Your task to perform on an android device: Open notification settings Image 0: 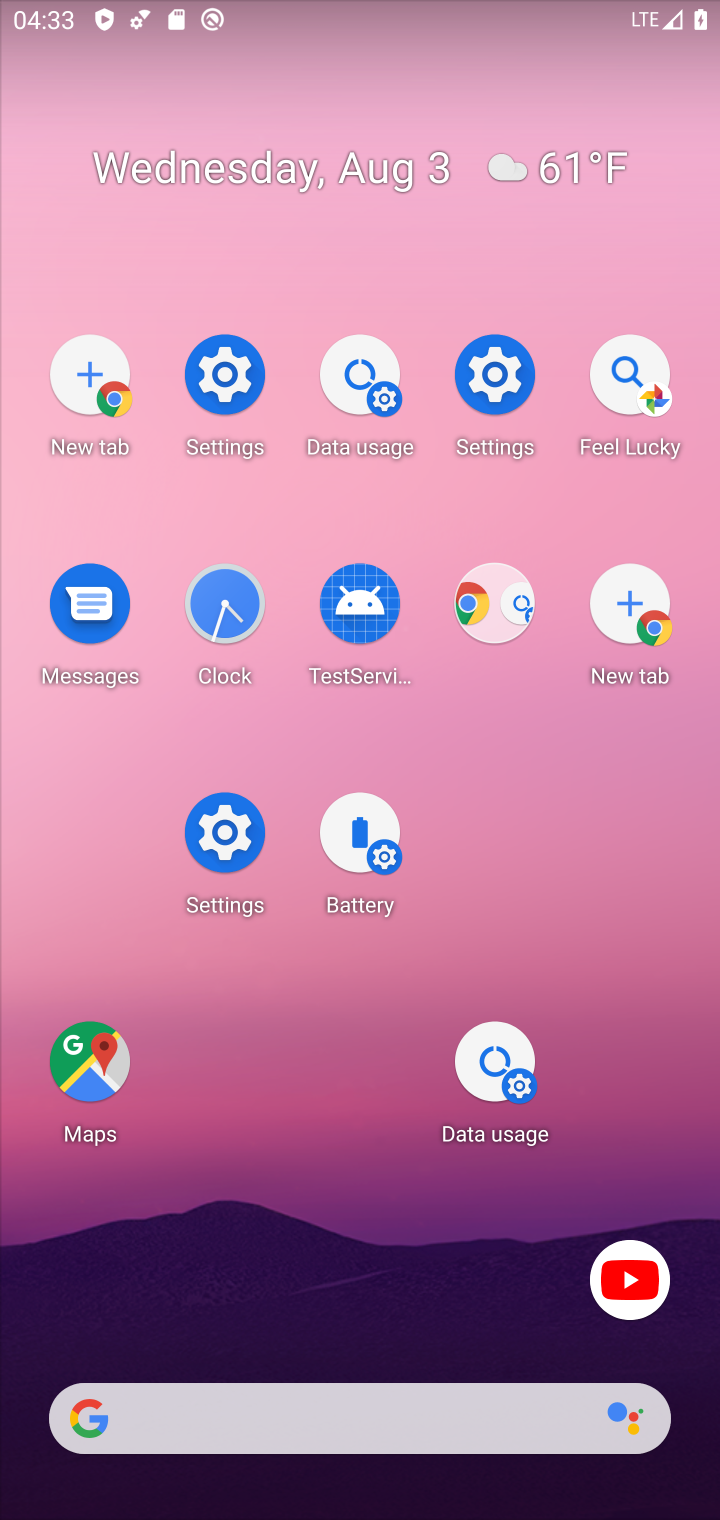
Step 0: drag from (301, 136) to (432, 665)
Your task to perform on an android device: Open notification settings Image 1: 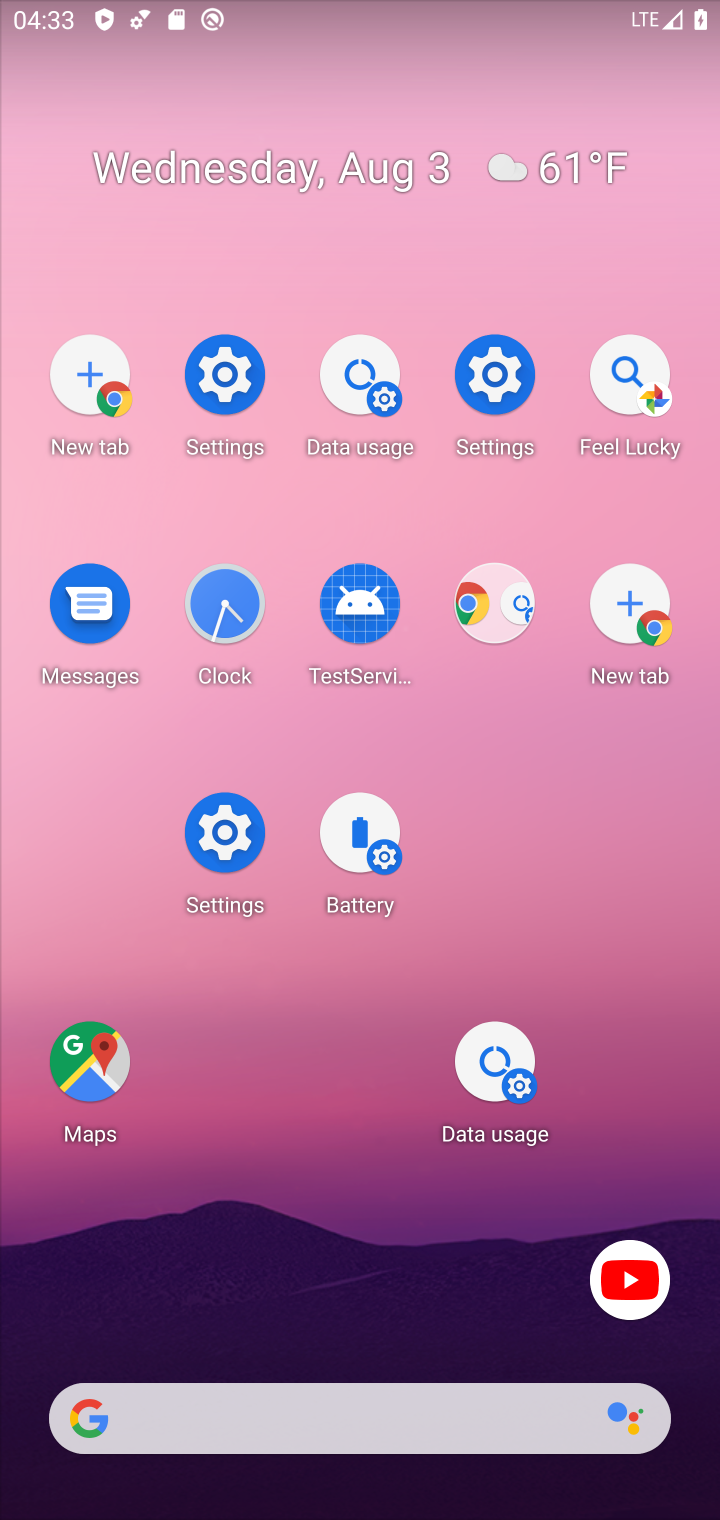
Step 1: drag from (420, 1185) to (363, 76)
Your task to perform on an android device: Open notification settings Image 2: 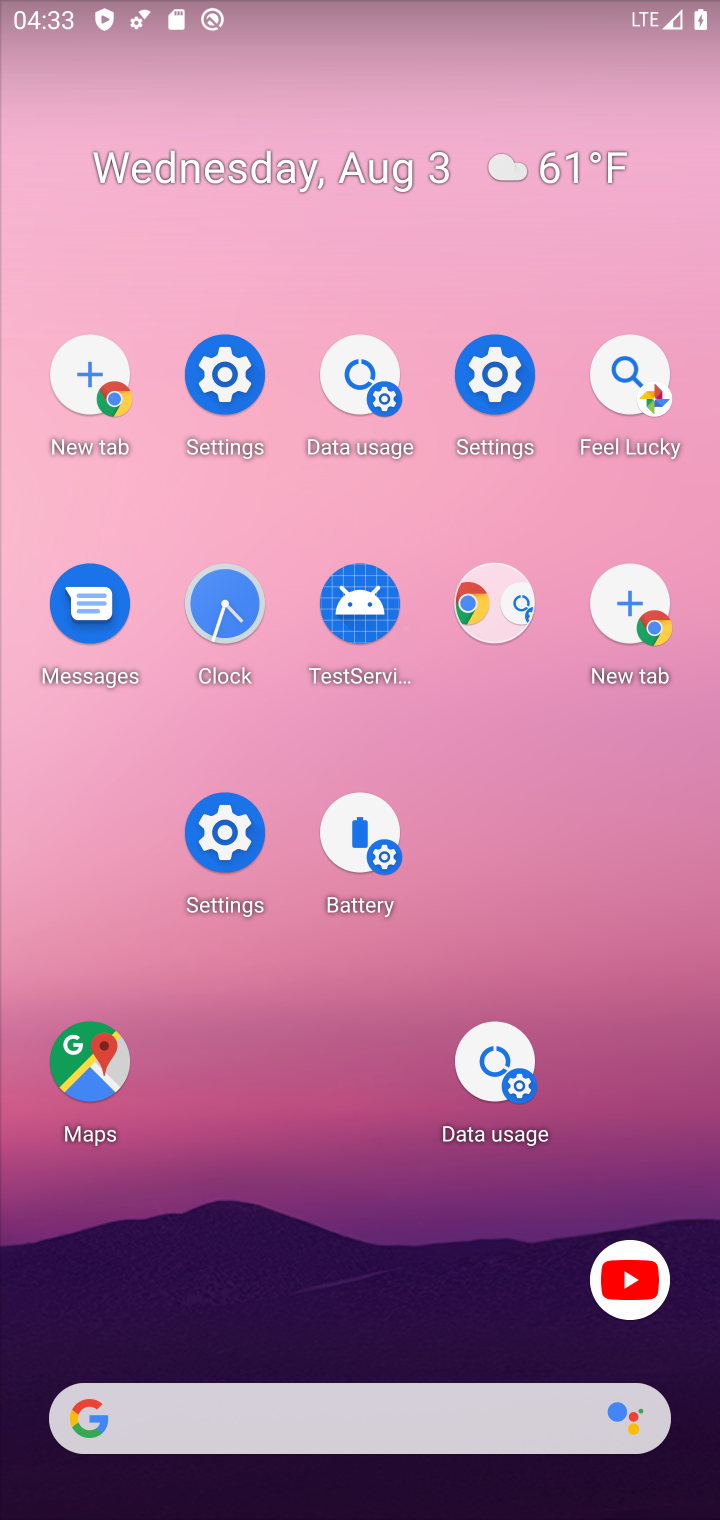
Step 2: drag from (405, 591) to (482, 192)
Your task to perform on an android device: Open notification settings Image 3: 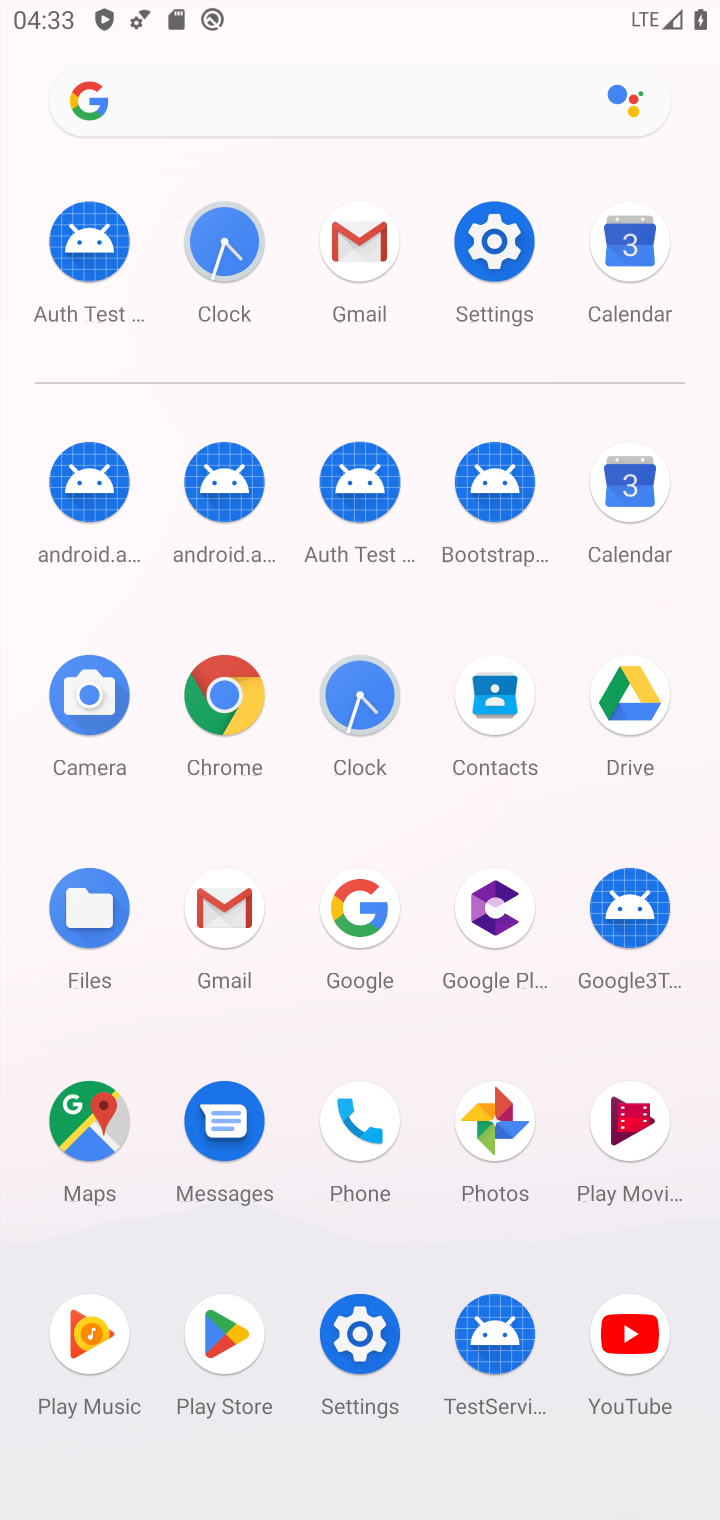
Step 3: drag from (330, 461) to (330, 317)
Your task to perform on an android device: Open notification settings Image 4: 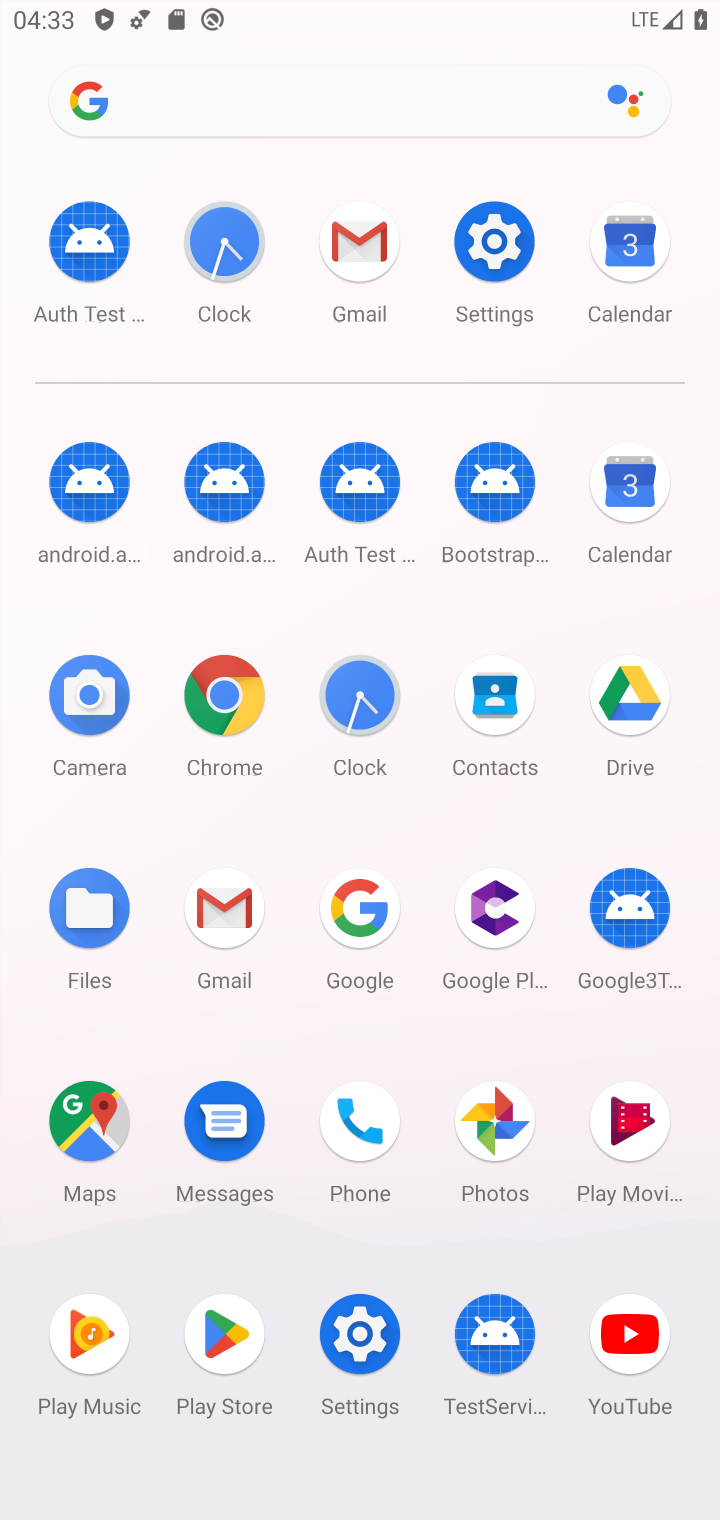
Step 4: click (491, 256)
Your task to perform on an android device: Open notification settings Image 5: 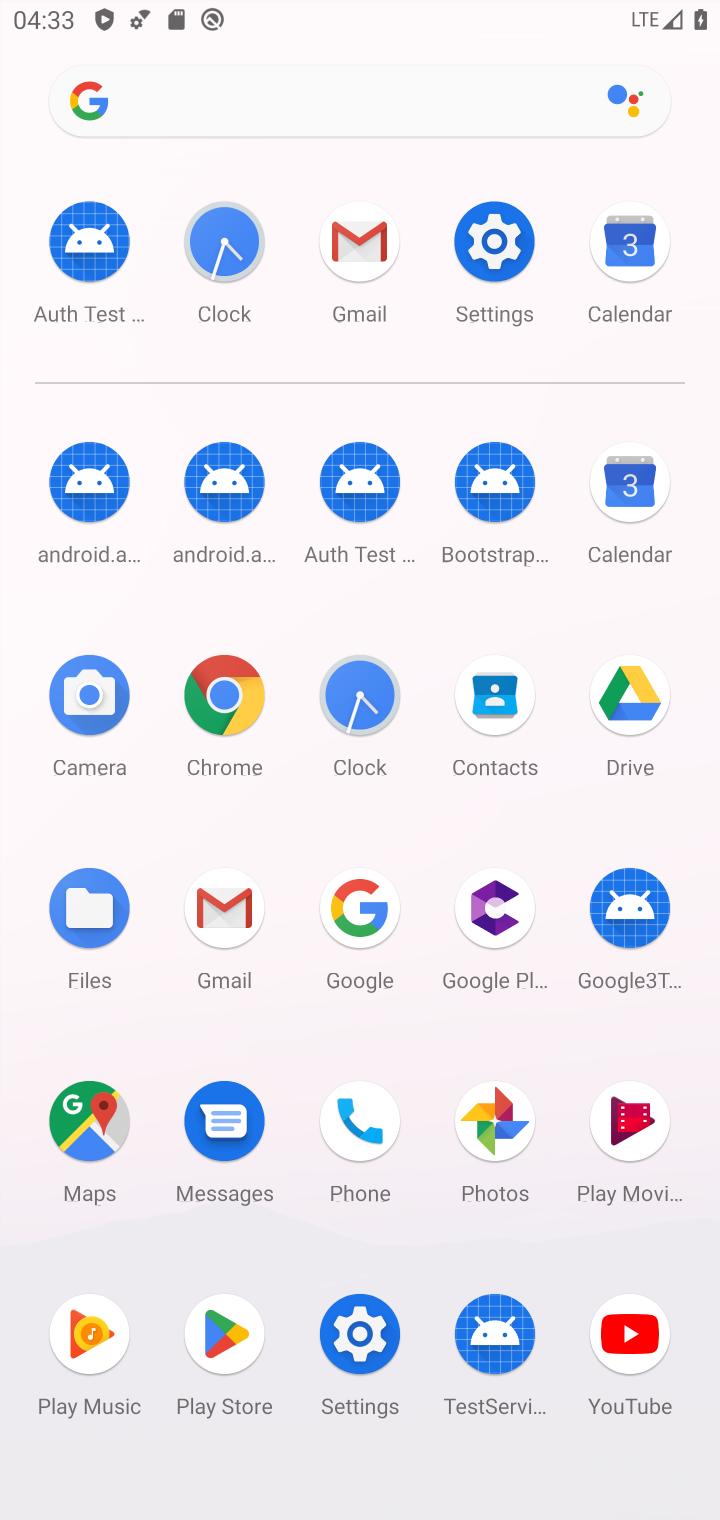
Step 5: click (491, 258)
Your task to perform on an android device: Open notification settings Image 6: 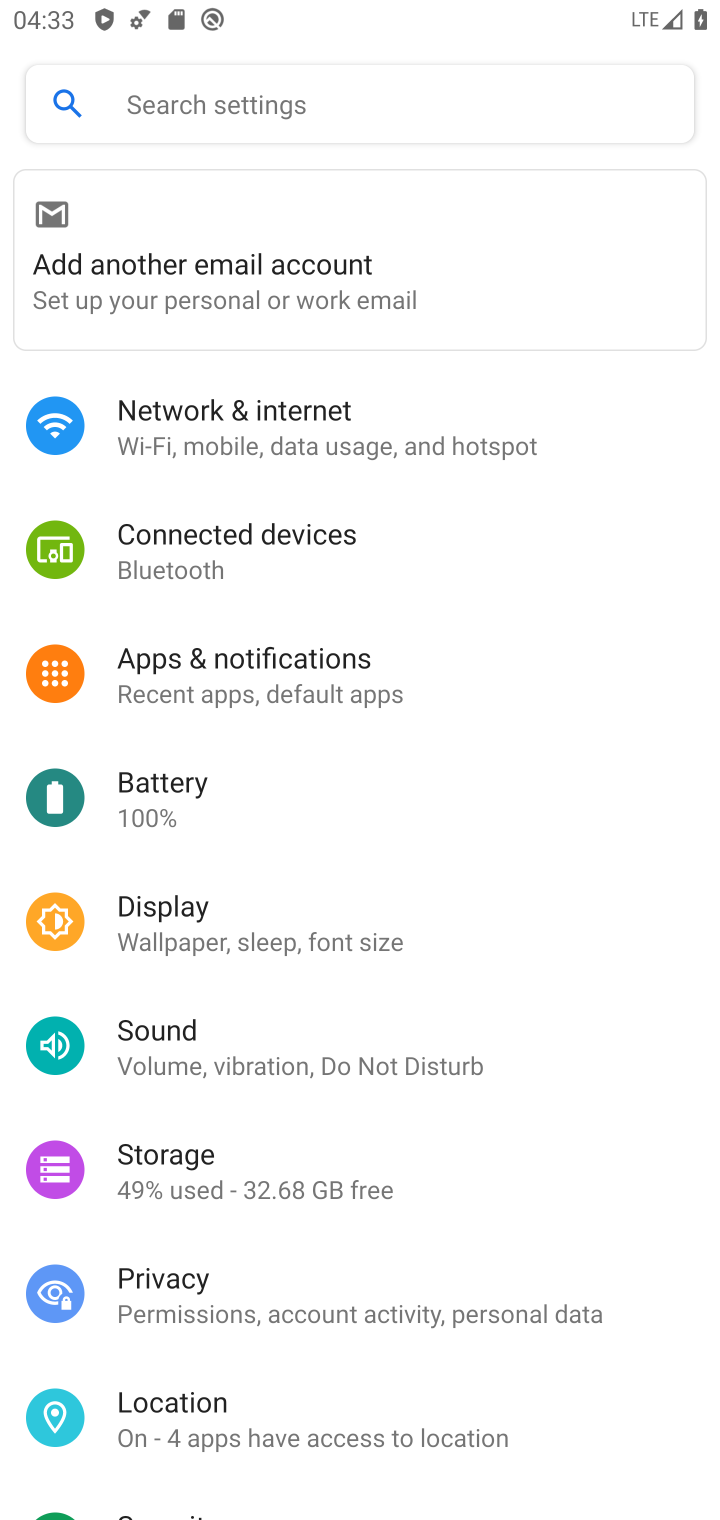
Step 6: click (501, 243)
Your task to perform on an android device: Open notification settings Image 7: 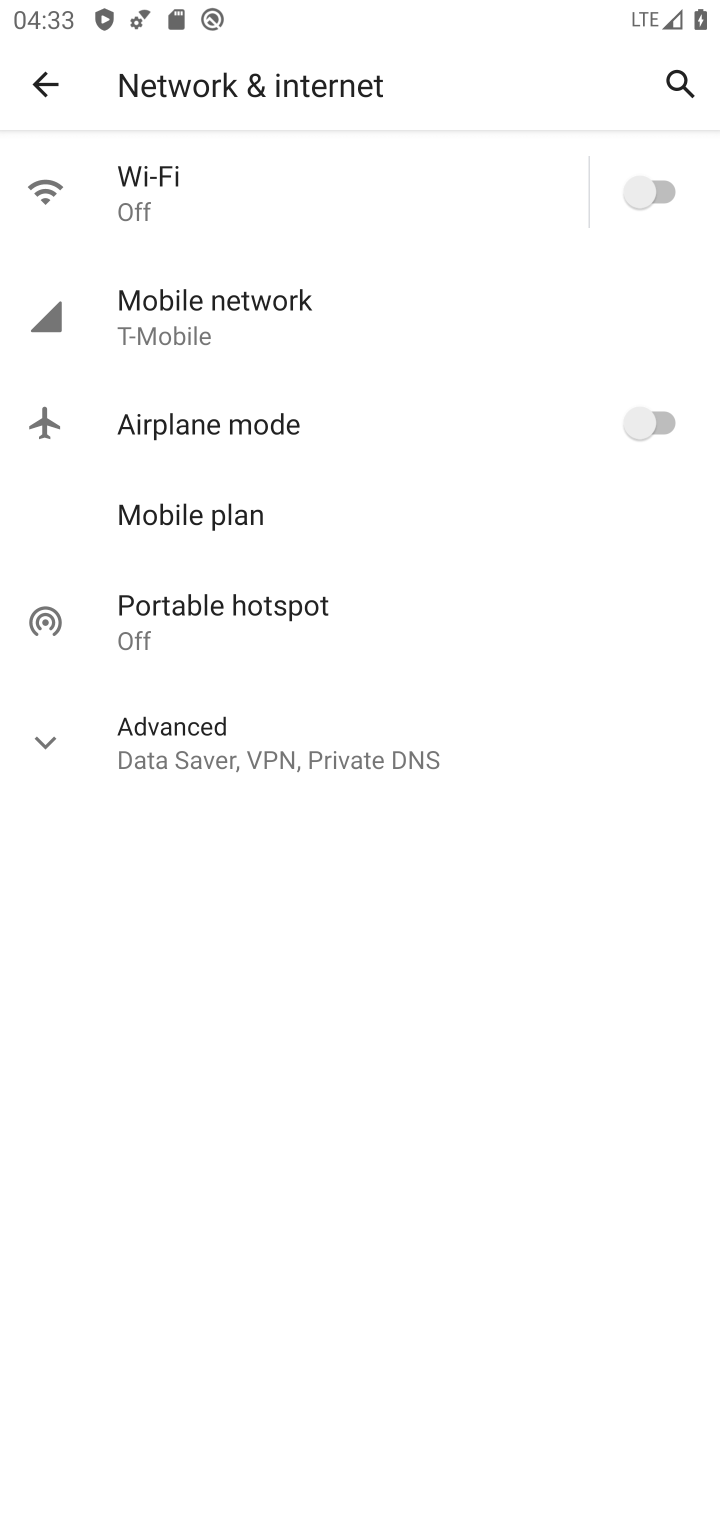
Step 7: click (246, 682)
Your task to perform on an android device: Open notification settings Image 8: 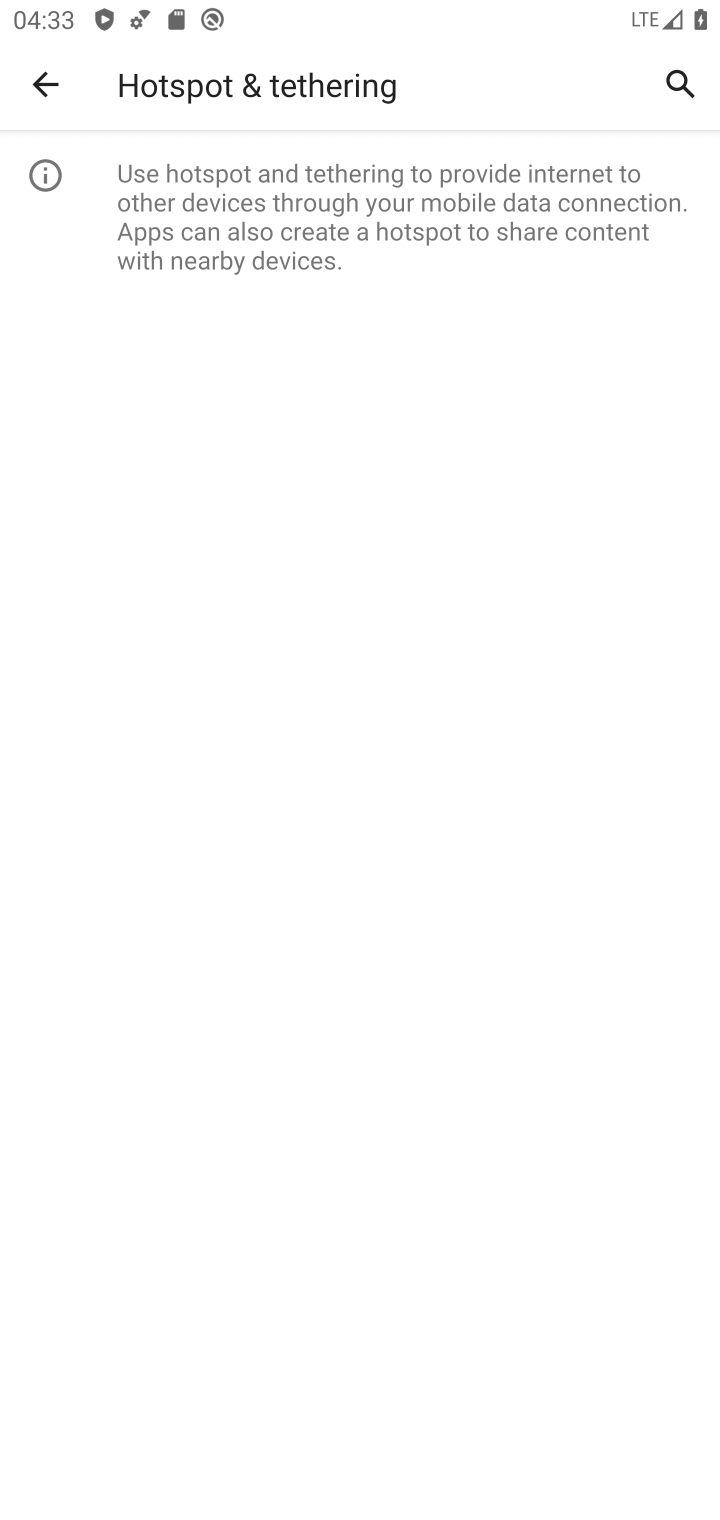
Step 8: click (30, 77)
Your task to perform on an android device: Open notification settings Image 9: 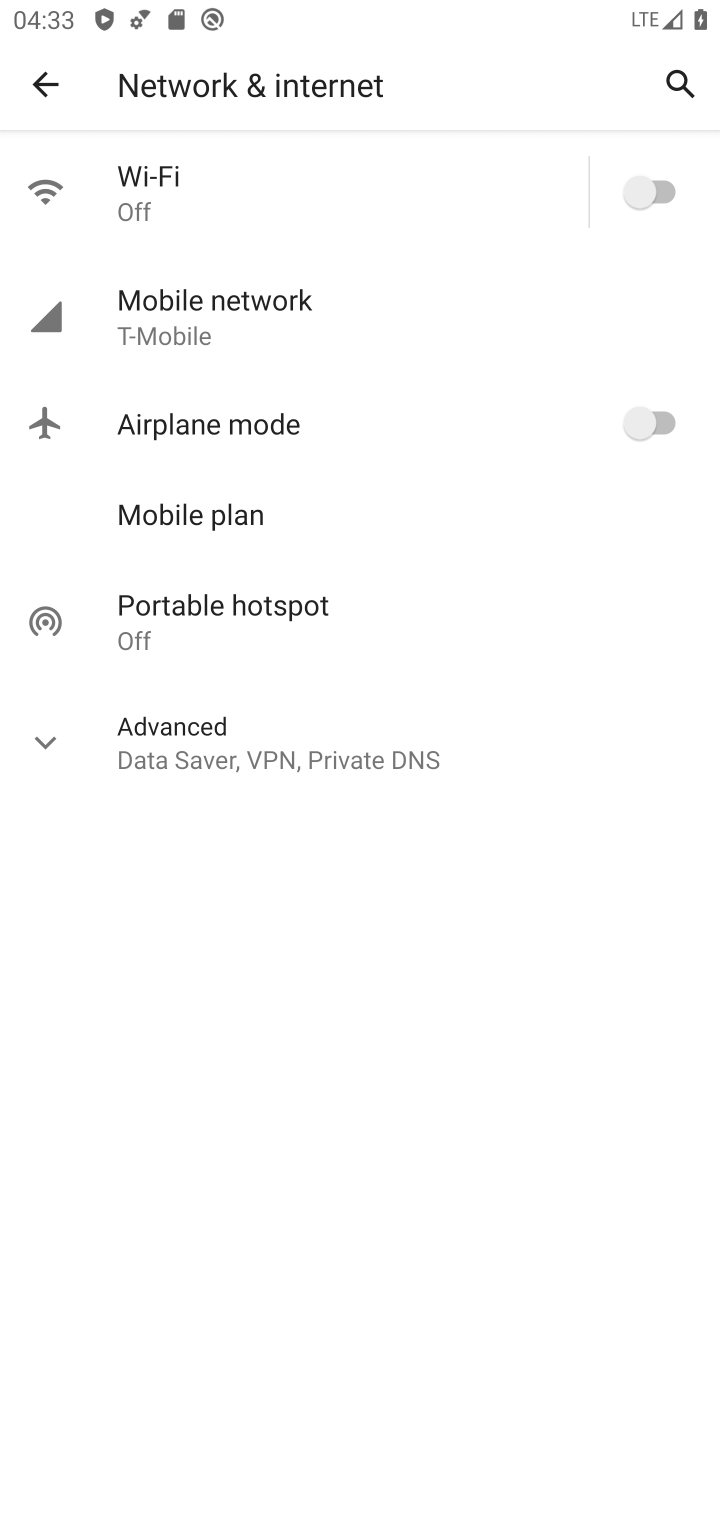
Step 9: click (30, 81)
Your task to perform on an android device: Open notification settings Image 10: 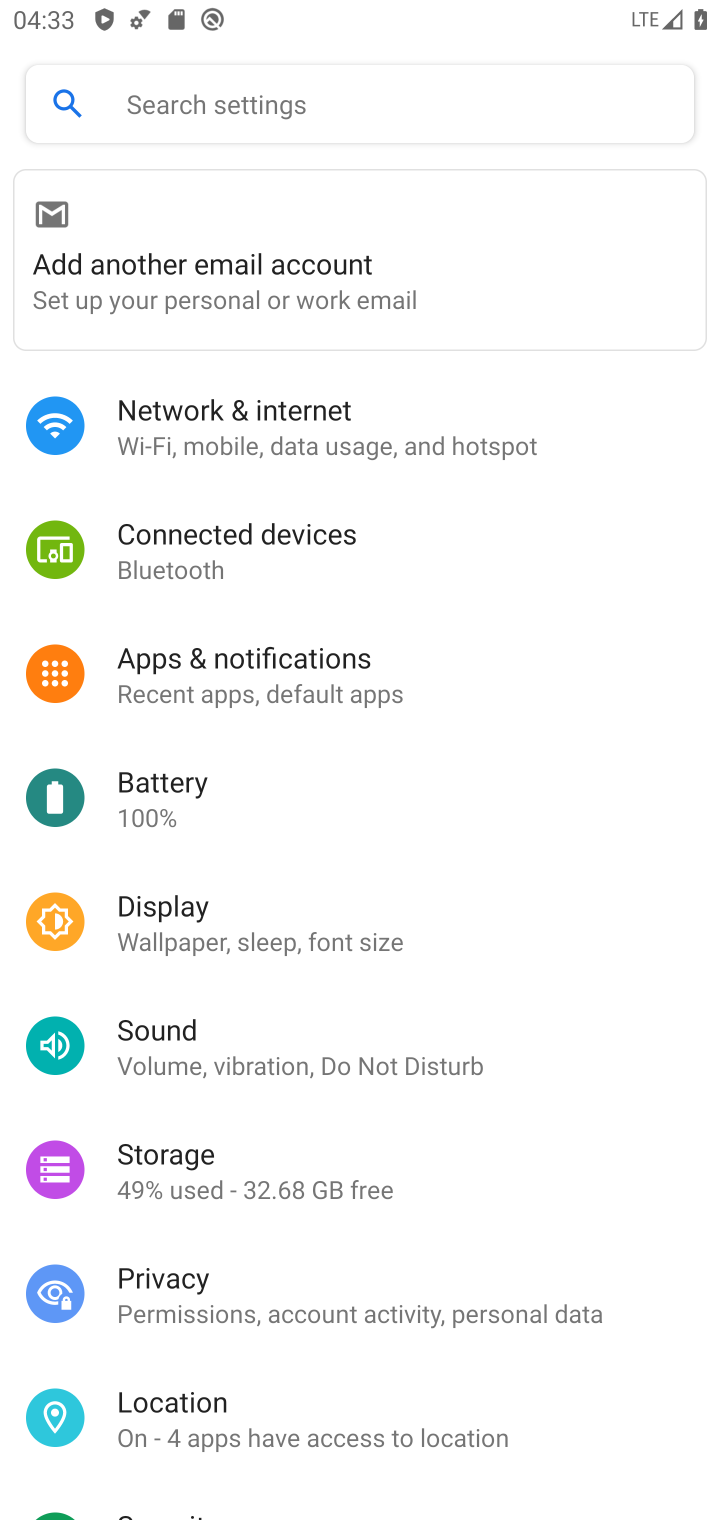
Step 10: click (217, 670)
Your task to perform on an android device: Open notification settings Image 11: 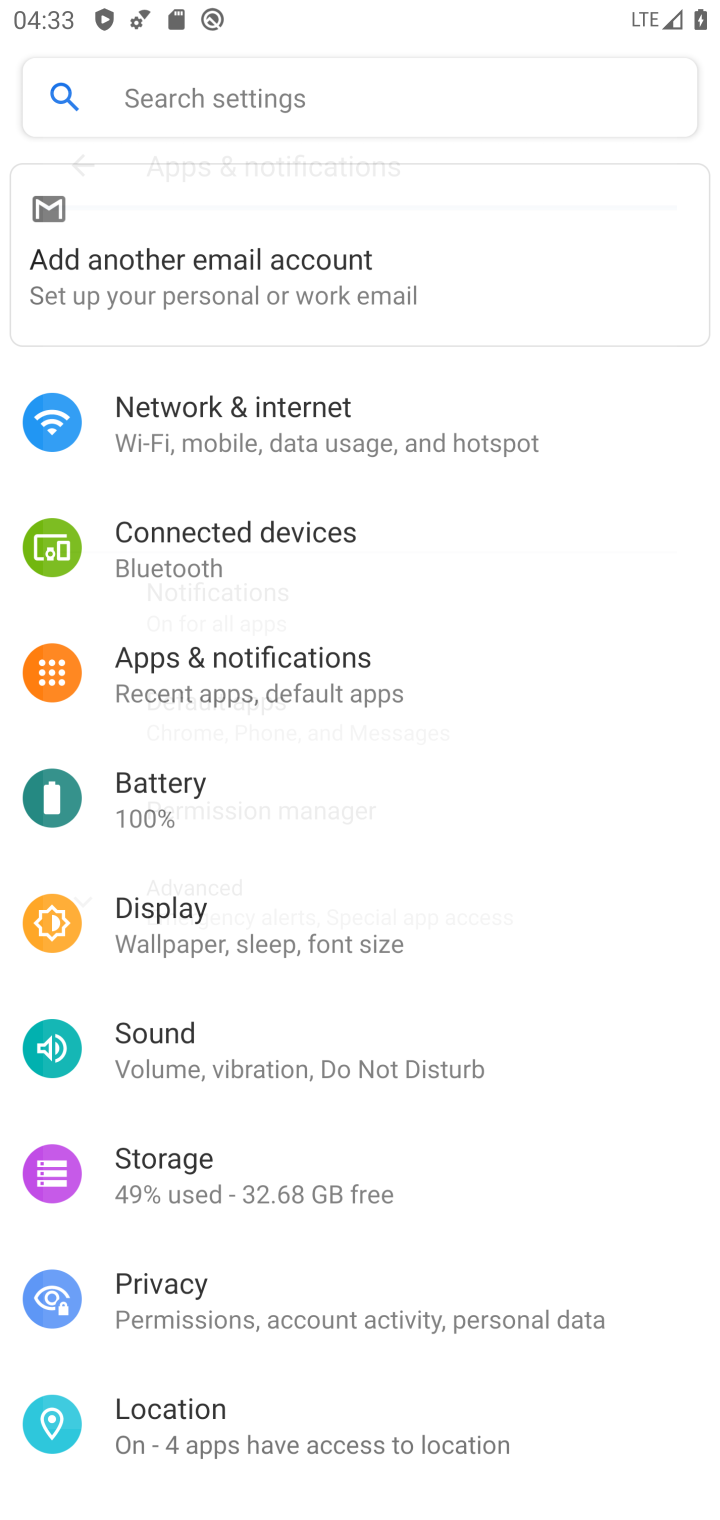
Step 11: click (242, 651)
Your task to perform on an android device: Open notification settings Image 12: 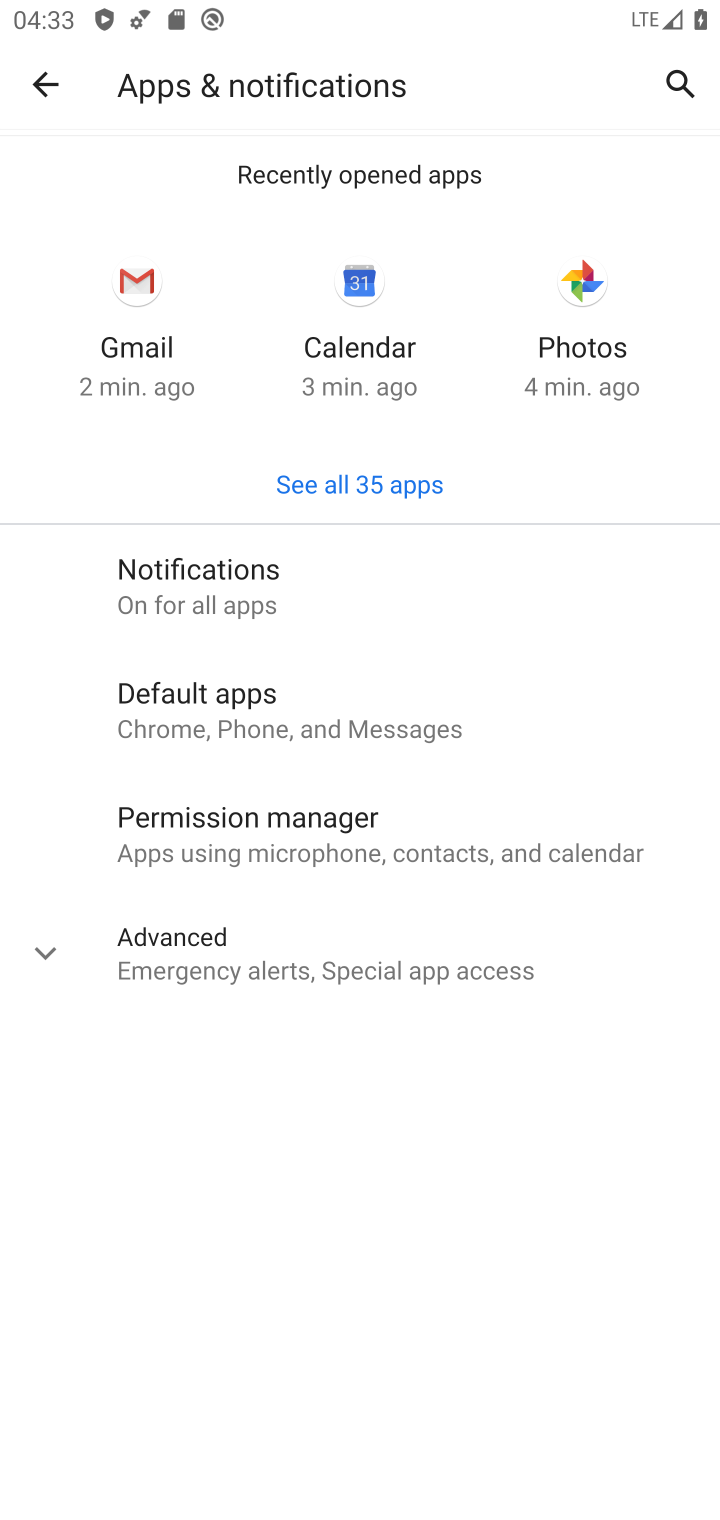
Step 12: click (254, 644)
Your task to perform on an android device: Open notification settings Image 13: 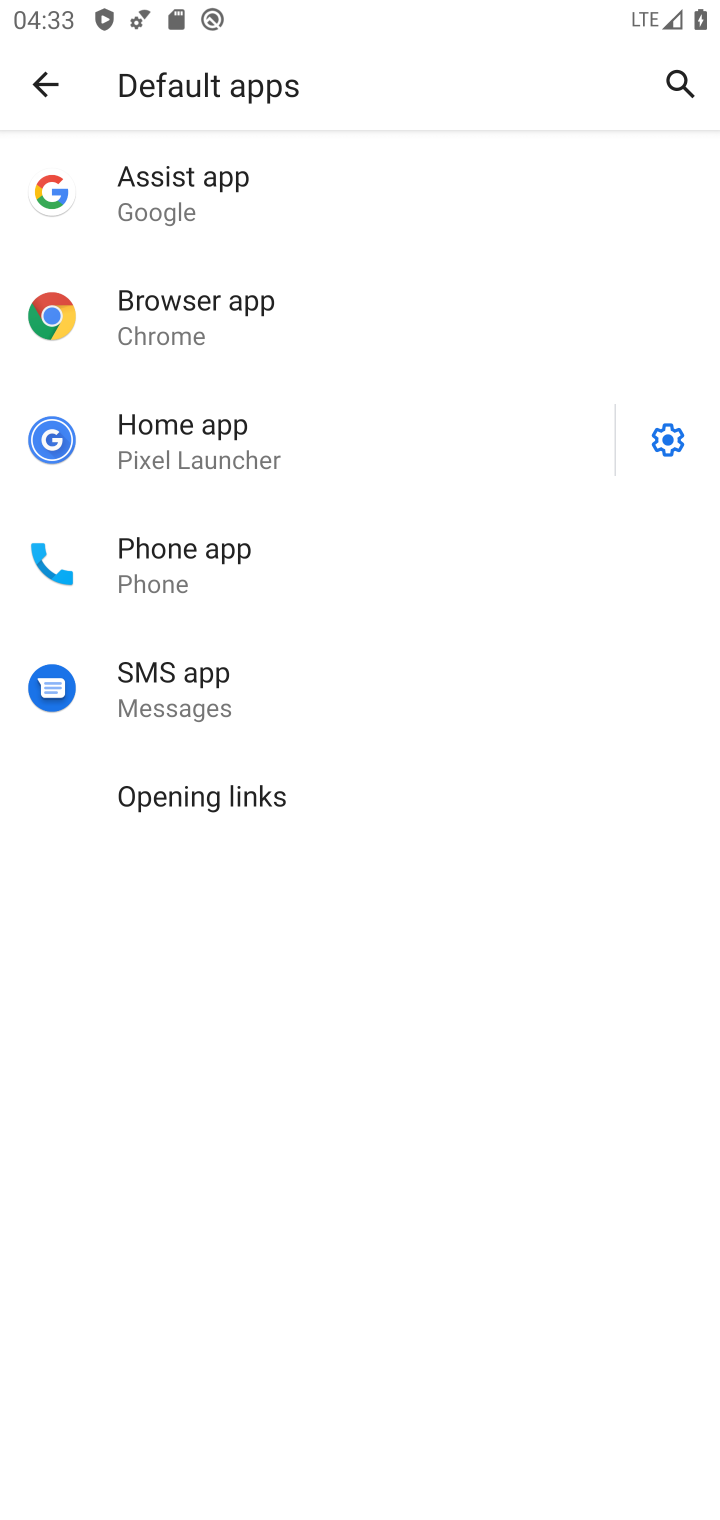
Step 13: click (35, 80)
Your task to perform on an android device: Open notification settings Image 14: 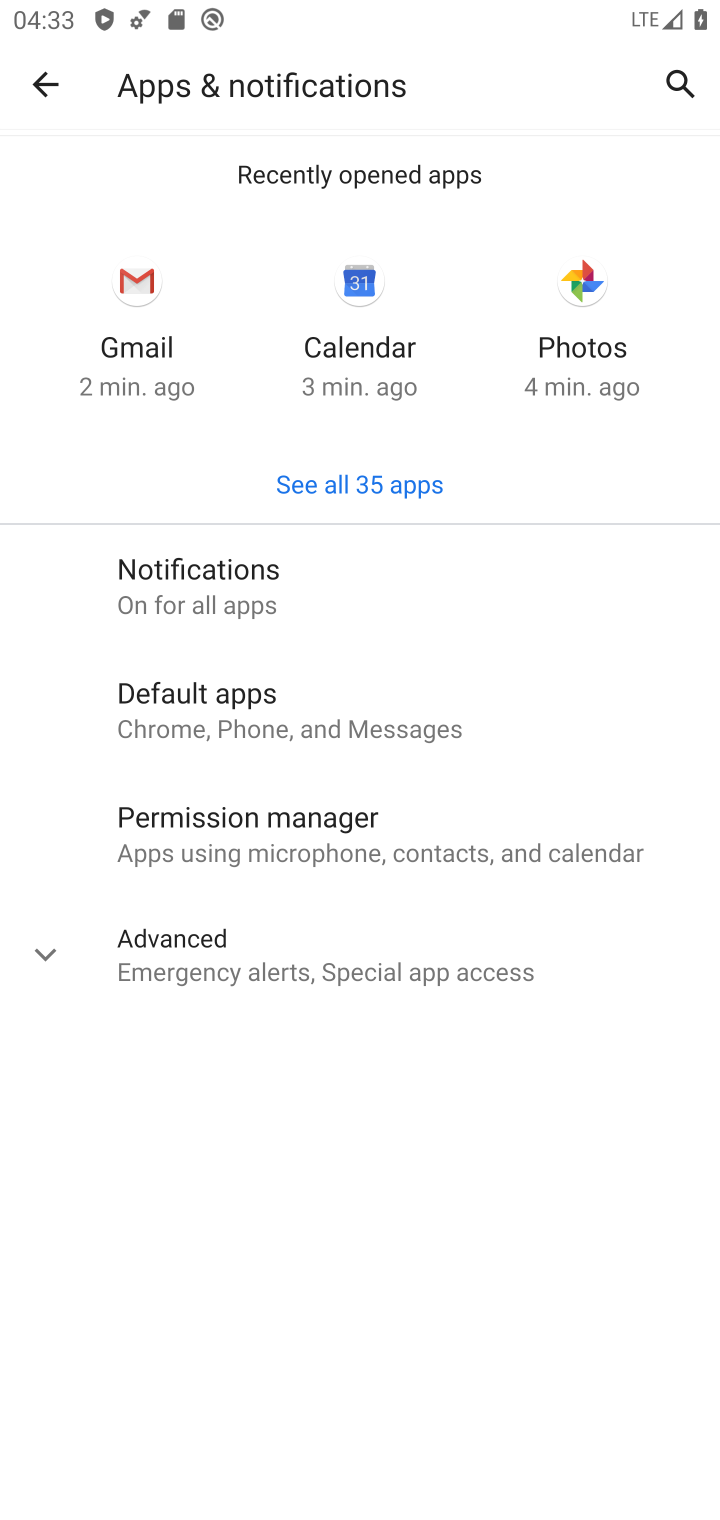
Step 14: click (212, 580)
Your task to perform on an android device: Open notification settings Image 15: 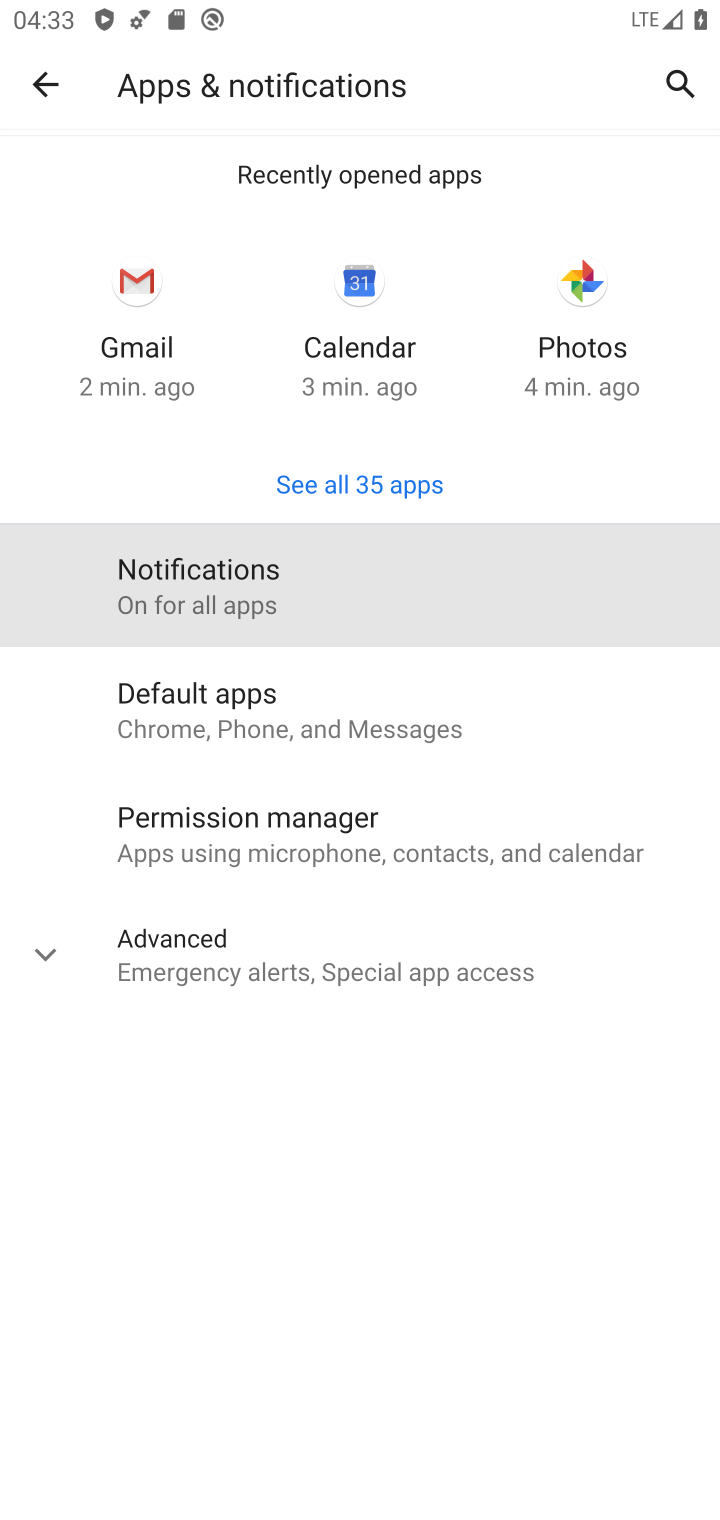
Step 15: click (216, 580)
Your task to perform on an android device: Open notification settings Image 16: 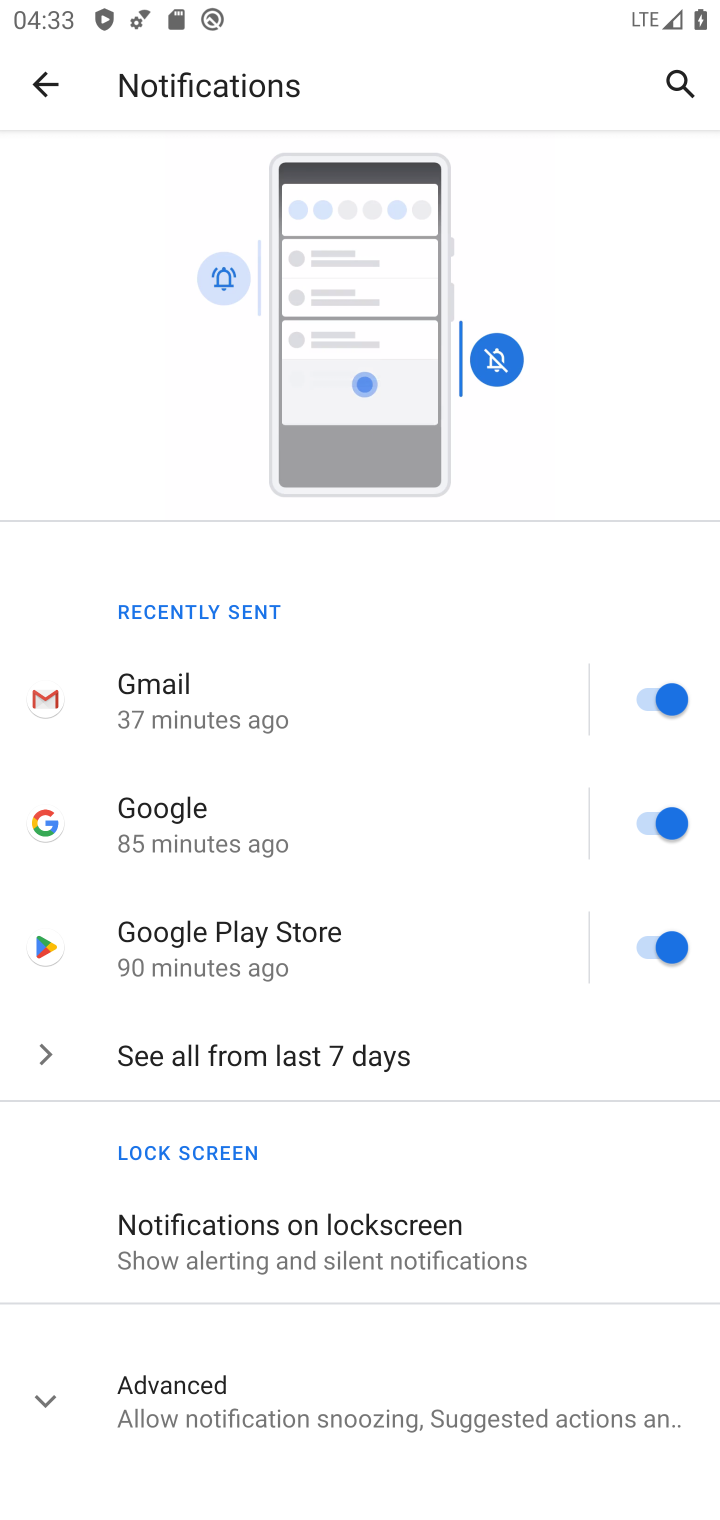
Step 16: task complete